Your task to perform on an android device: Open the web browser Image 0: 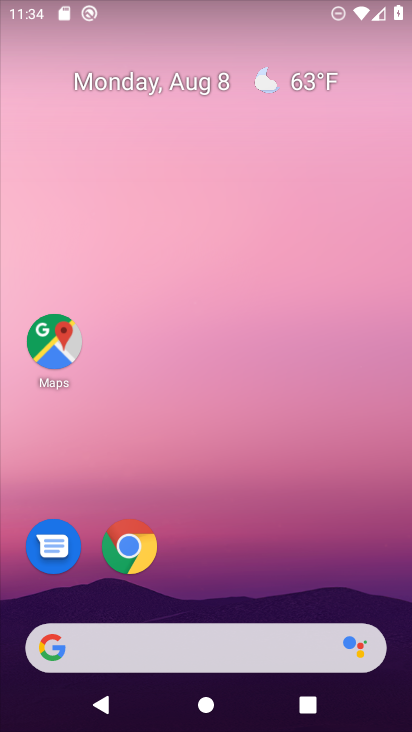
Step 0: click (124, 542)
Your task to perform on an android device: Open the web browser Image 1: 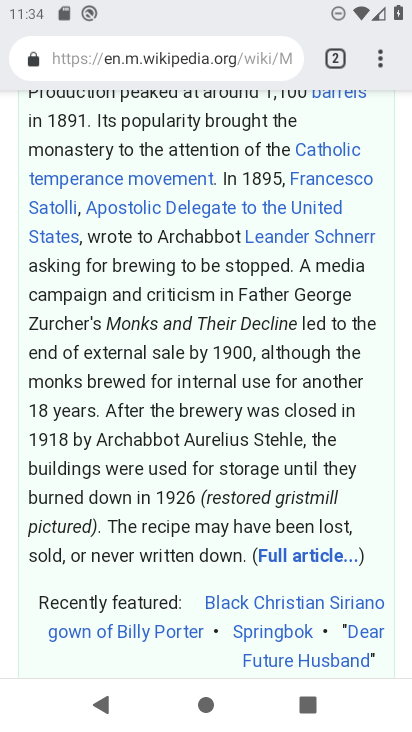
Step 1: click (332, 53)
Your task to perform on an android device: Open the web browser Image 2: 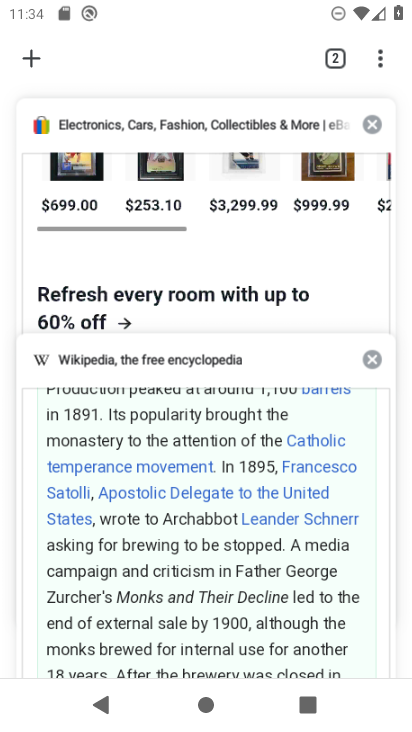
Step 2: click (33, 55)
Your task to perform on an android device: Open the web browser Image 3: 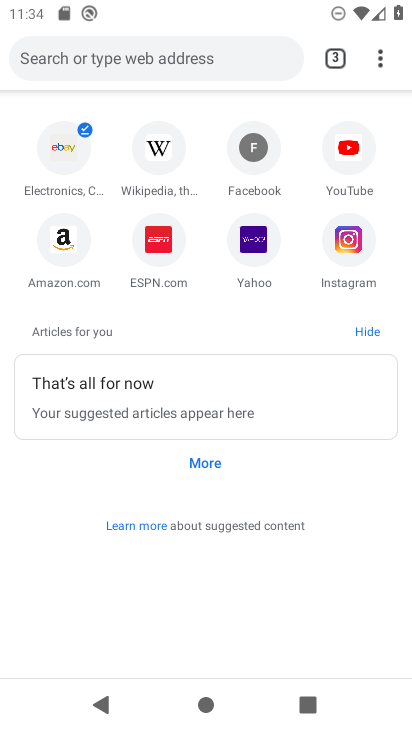
Step 3: task complete